Your task to perform on an android device: What's the news? Image 0: 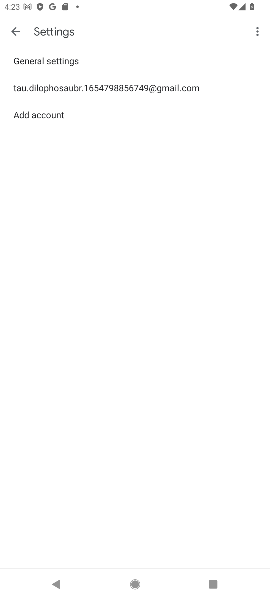
Step 0: press home button
Your task to perform on an android device: What's the news? Image 1: 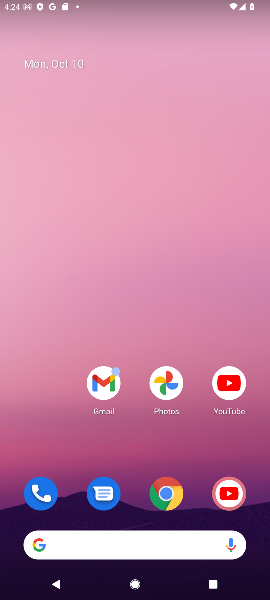
Step 1: click (184, 547)
Your task to perform on an android device: What's the news? Image 2: 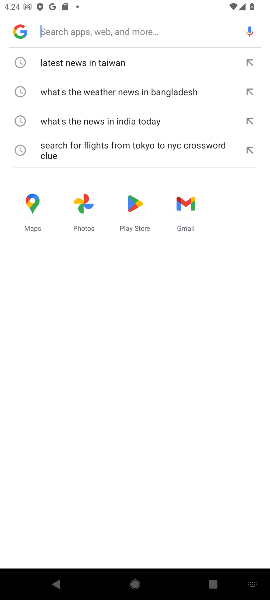
Step 2: type "the news"
Your task to perform on an android device: What's the news? Image 3: 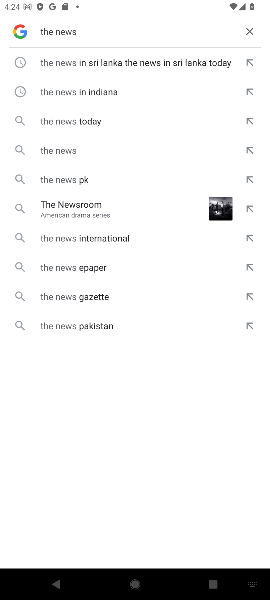
Step 3: click (72, 144)
Your task to perform on an android device: What's the news? Image 4: 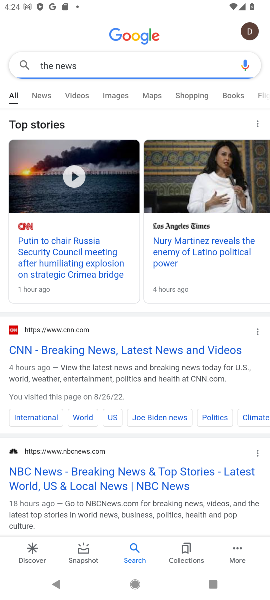
Step 4: task complete